Your task to perform on an android device: turn off data saver in the chrome app Image 0: 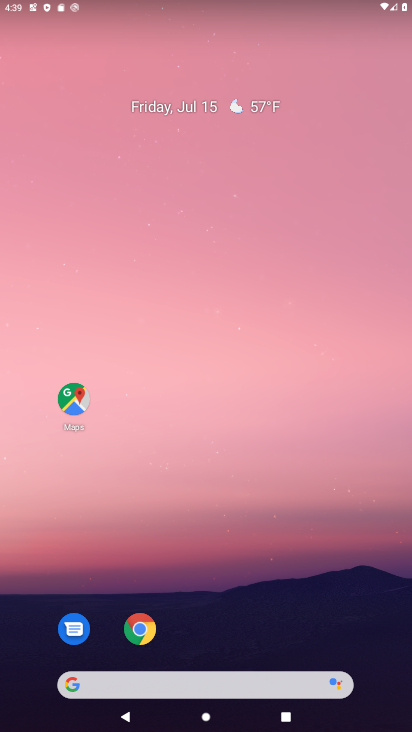
Step 0: press home button
Your task to perform on an android device: turn off data saver in the chrome app Image 1: 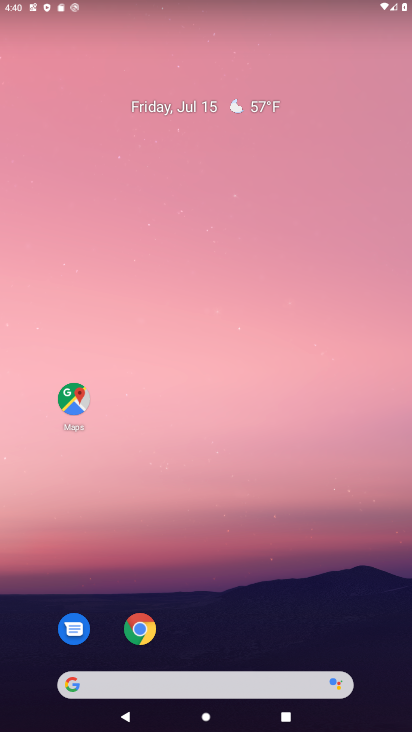
Step 1: drag from (354, 649) to (11, 57)
Your task to perform on an android device: turn off data saver in the chrome app Image 2: 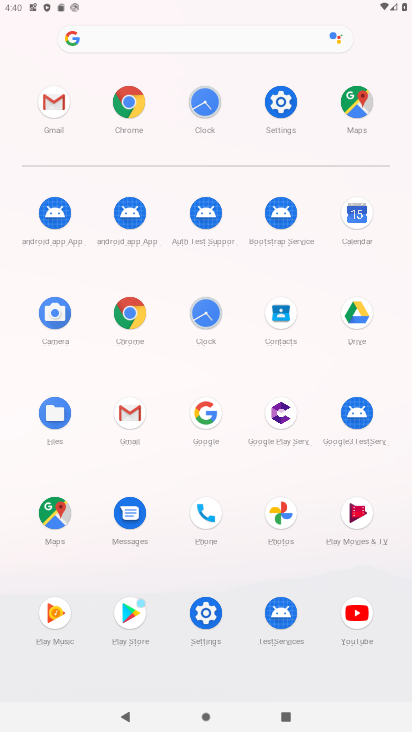
Step 2: click (114, 109)
Your task to perform on an android device: turn off data saver in the chrome app Image 3: 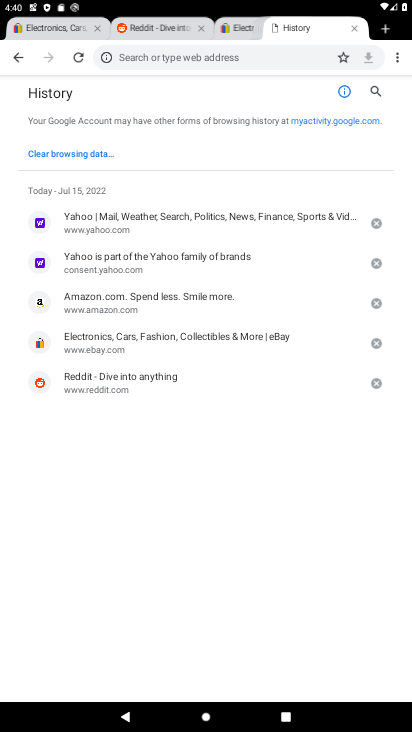
Step 3: drag from (392, 58) to (327, 277)
Your task to perform on an android device: turn off data saver in the chrome app Image 4: 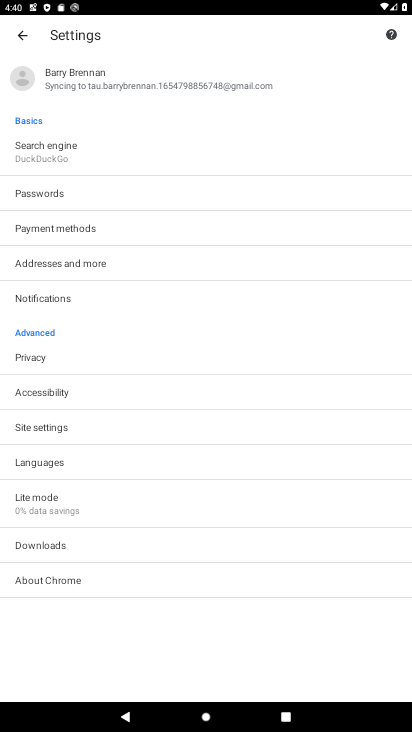
Step 4: click (50, 517)
Your task to perform on an android device: turn off data saver in the chrome app Image 5: 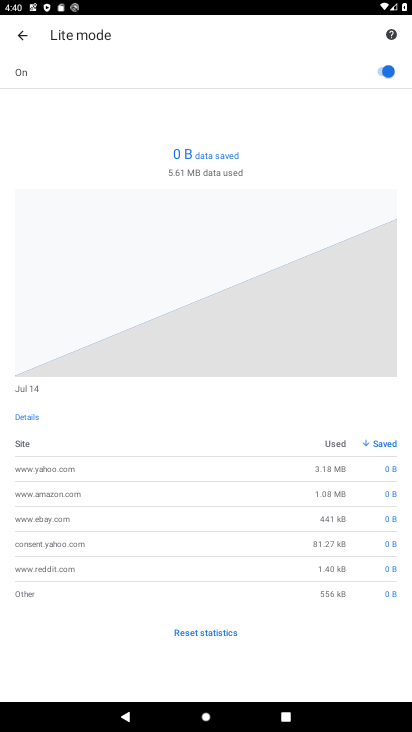
Step 5: click (386, 71)
Your task to perform on an android device: turn off data saver in the chrome app Image 6: 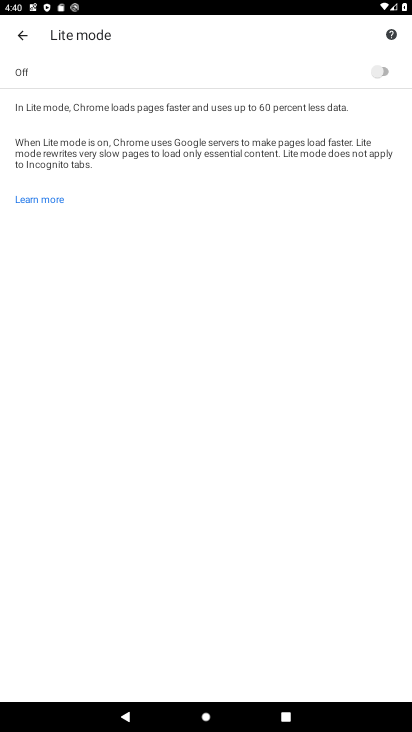
Step 6: task complete